Your task to perform on an android device: Show me recent news Image 0: 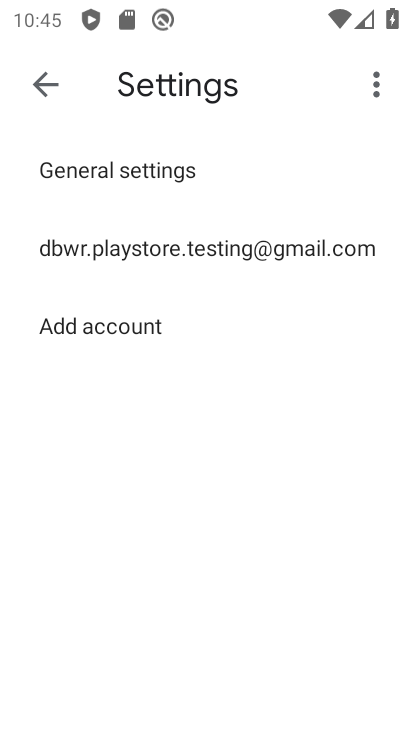
Step 0: press home button
Your task to perform on an android device: Show me recent news Image 1: 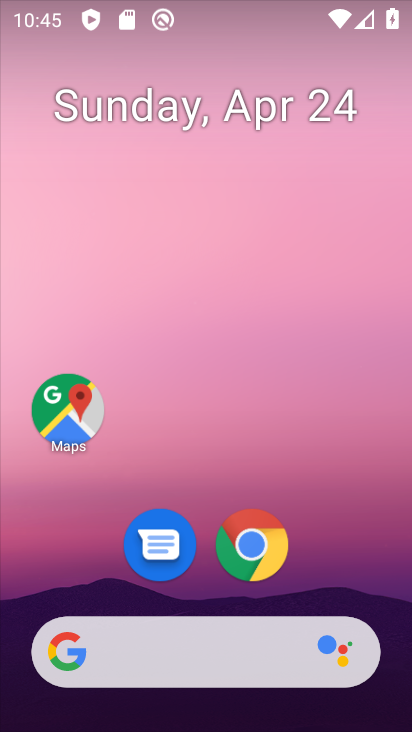
Step 1: drag from (270, 626) to (304, 157)
Your task to perform on an android device: Show me recent news Image 2: 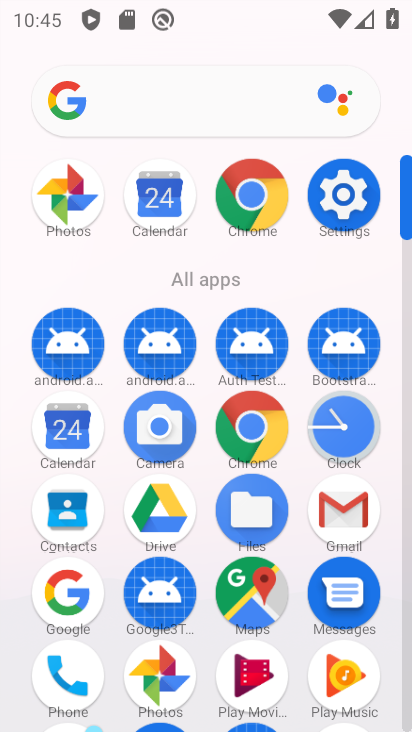
Step 2: click (252, 214)
Your task to perform on an android device: Show me recent news Image 3: 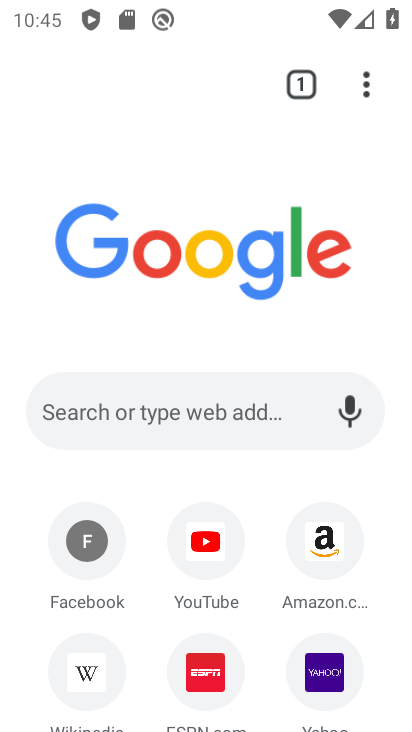
Step 3: click (168, 414)
Your task to perform on an android device: Show me recent news Image 4: 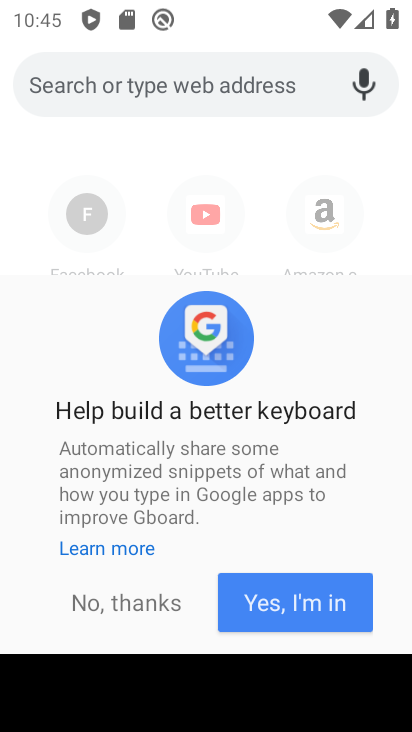
Step 4: click (119, 600)
Your task to perform on an android device: Show me recent news Image 5: 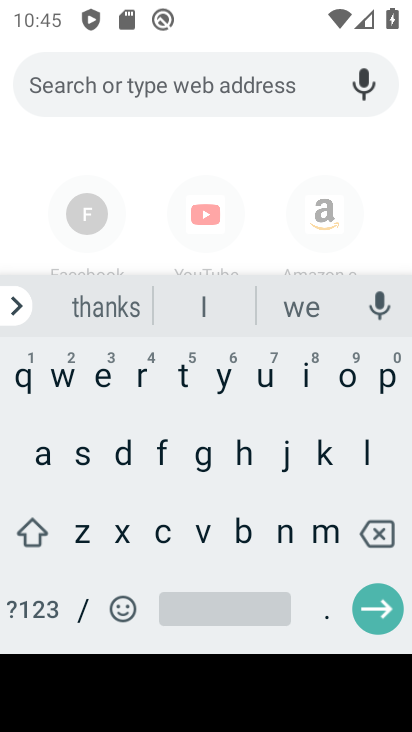
Step 5: click (144, 370)
Your task to perform on an android device: Show me recent news Image 6: 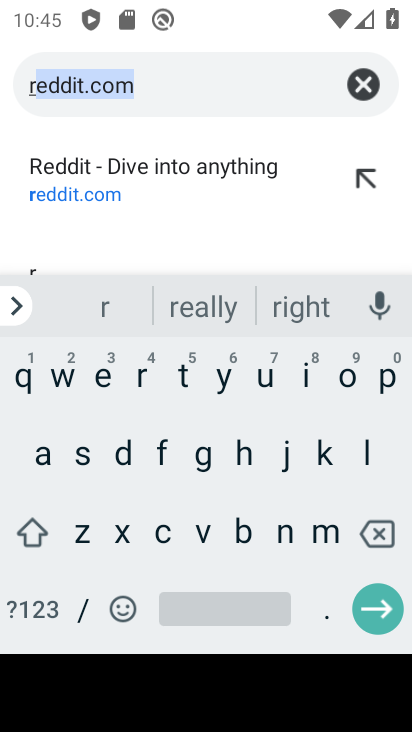
Step 6: click (107, 378)
Your task to perform on an android device: Show me recent news Image 7: 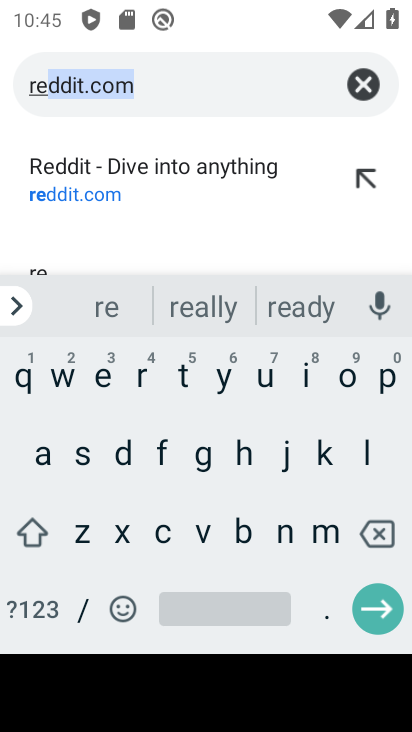
Step 7: click (161, 531)
Your task to perform on an android device: Show me recent news Image 8: 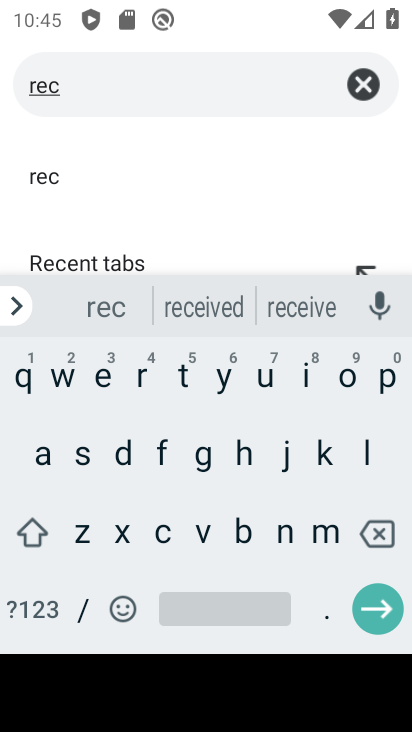
Step 8: click (103, 383)
Your task to perform on an android device: Show me recent news Image 9: 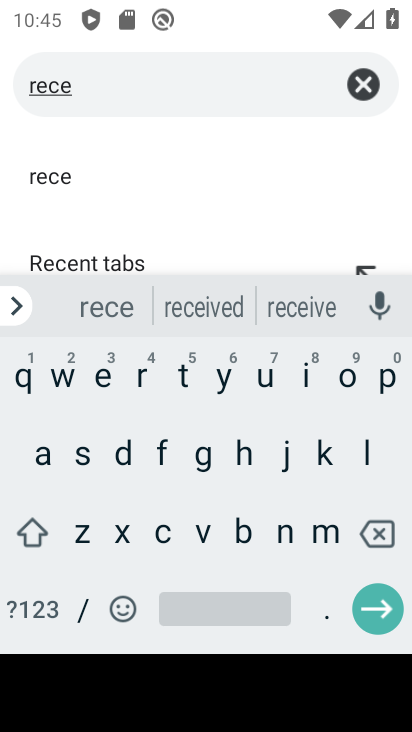
Step 9: click (289, 531)
Your task to perform on an android device: Show me recent news Image 10: 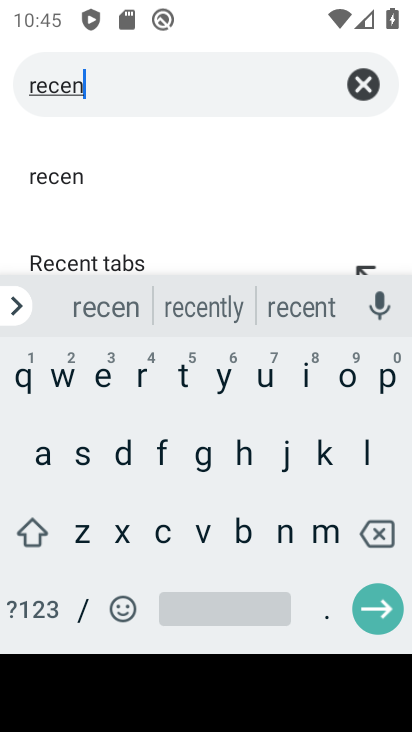
Step 10: click (186, 379)
Your task to perform on an android device: Show me recent news Image 11: 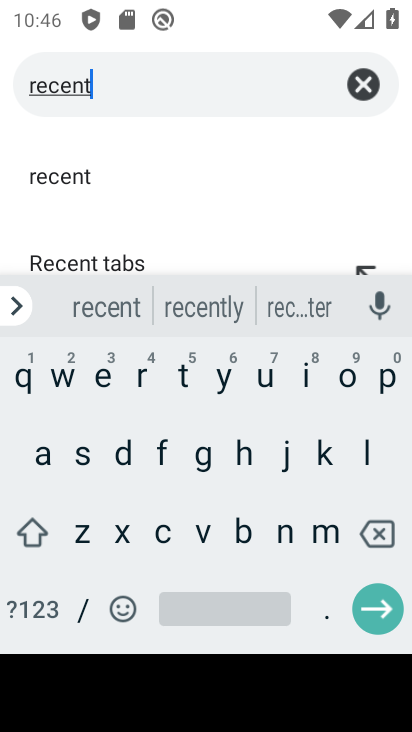
Step 11: click (223, 609)
Your task to perform on an android device: Show me recent news Image 12: 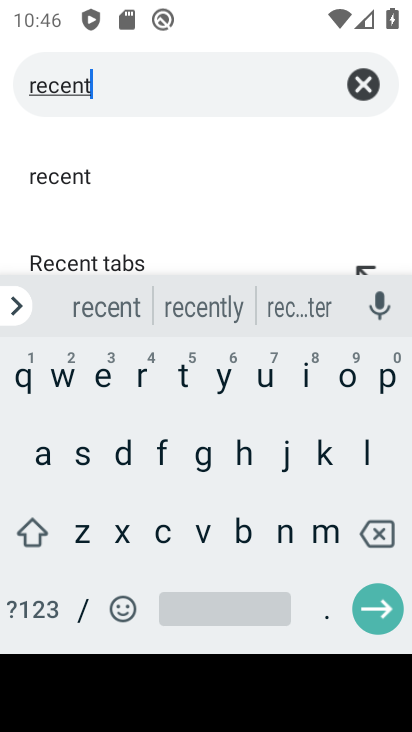
Step 12: click (282, 529)
Your task to perform on an android device: Show me recent news Image 13: 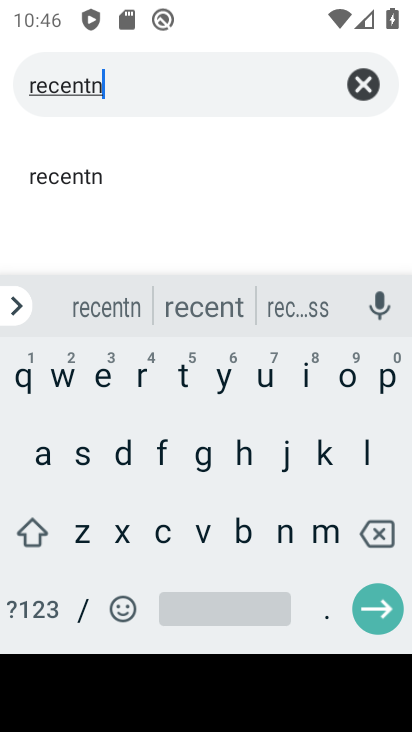
Step 13: click (96, 377)
Your task to perform on an android device: Show me recent news Image 14: 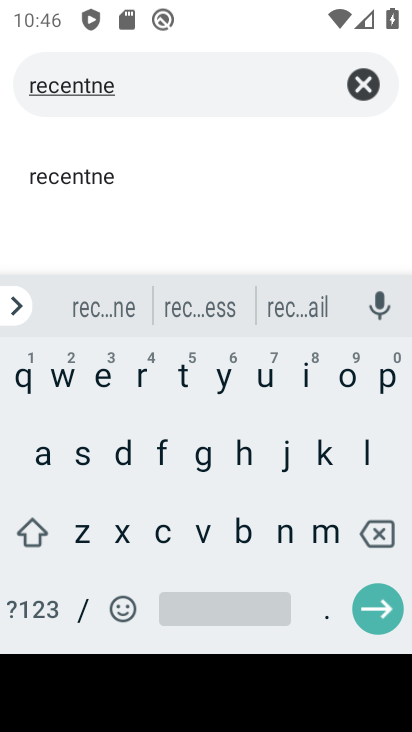
Step 14: click (54, 378)
Your task to perform on an android device: Show me recent news Image 15: 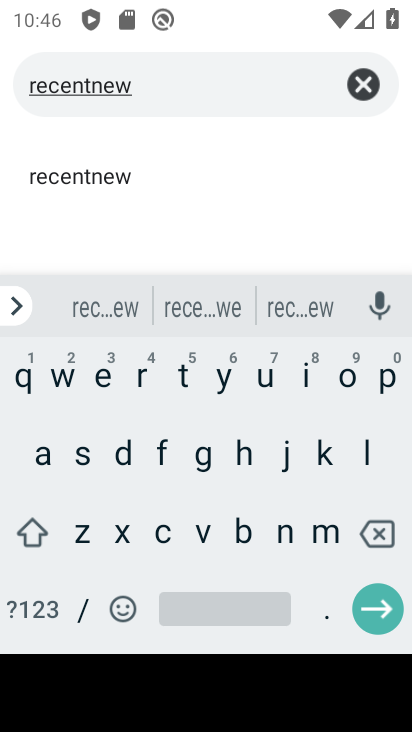
Step 15: click (82, 458)
Your task to perform on an android device: Show me recent news Image 16: 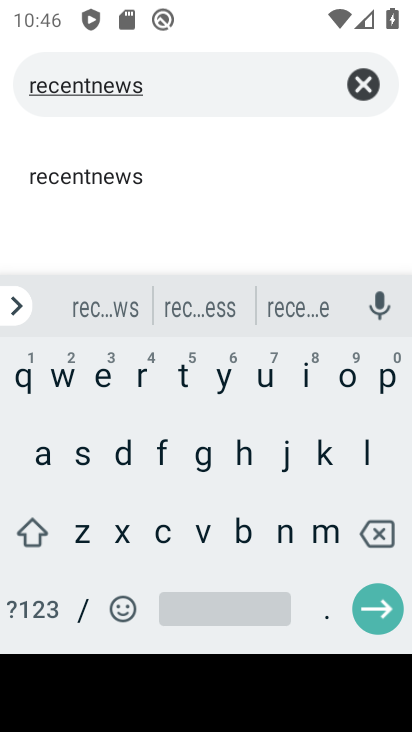
Step 16: click (378, 602)
Your task to perform on an android device: Show me recent news Image 17: 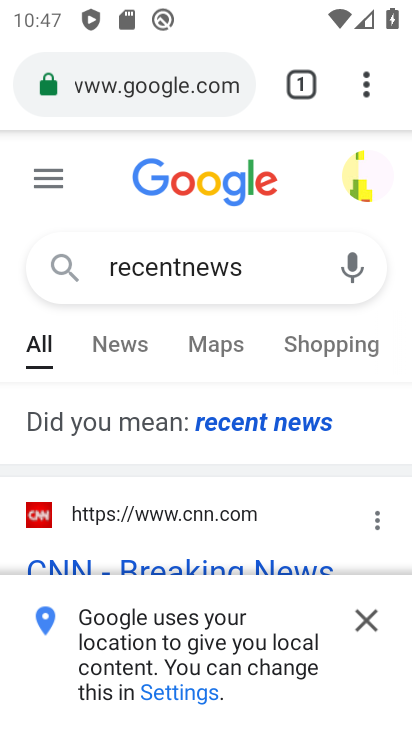
Step 17: click (362, 616)
Your task to perform on an android device: Show me recent news Image 18: 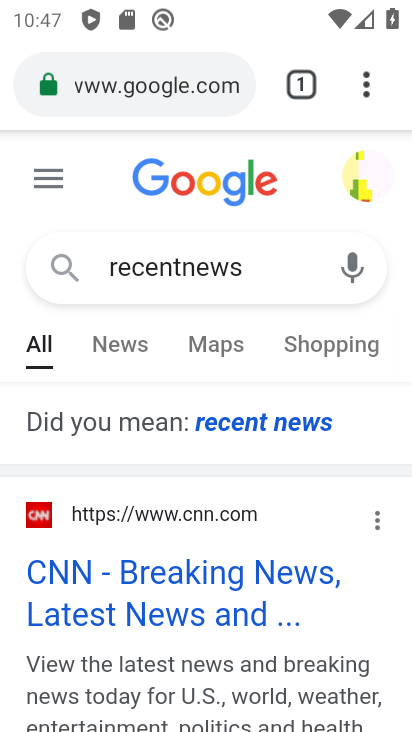
Step 18: click (132, 348)
Your task to perform on an android device: Show me recent news Image 19: 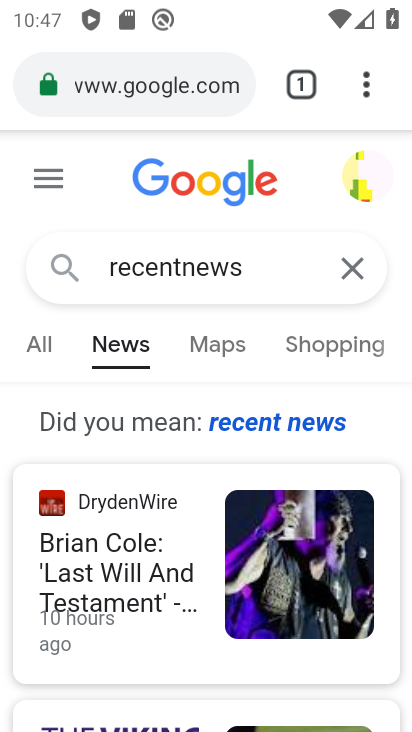
Step 19: task complete